Your task to perform on an android device: Search for pizza restaurants on Maps Image 0: 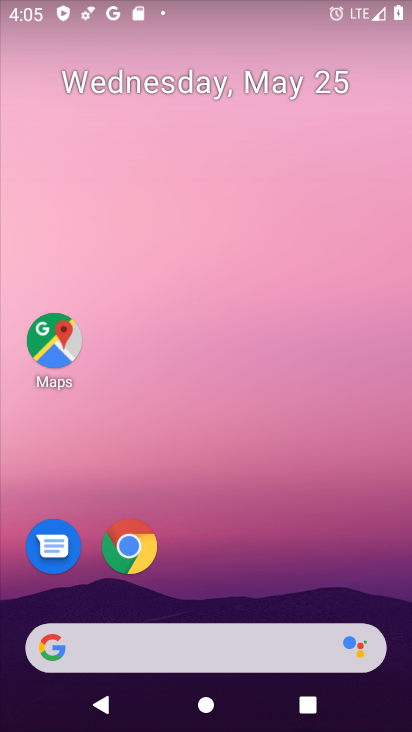
Step 0: click (62, 344)
Your task to perform on an android device: Search for pizza restaurants on Maps Image 1: 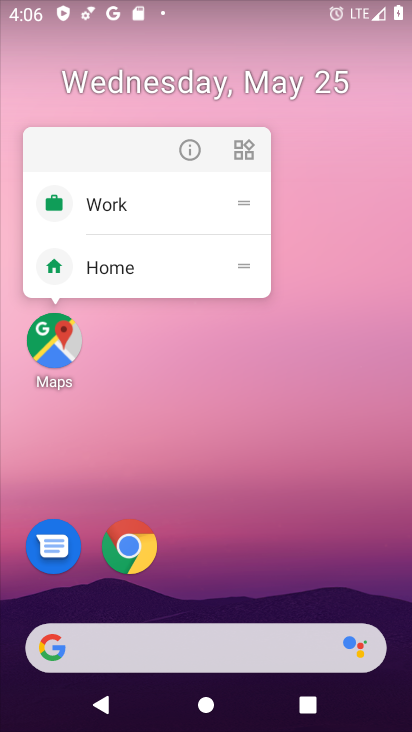
Step 1: click (67, 349)
Your task to perform on an android device: Search for pizza restaurants on Maps Image 2: 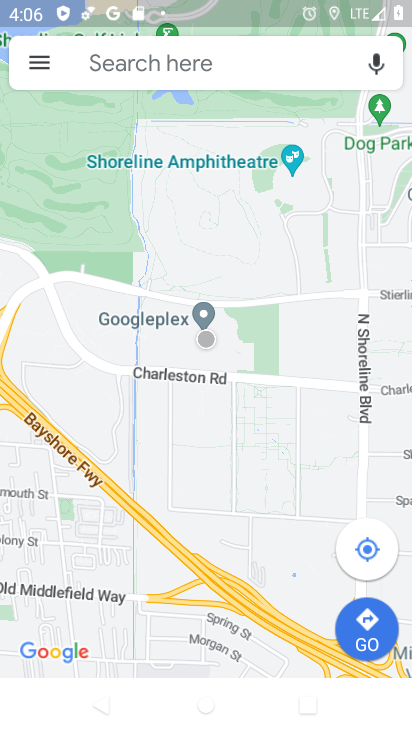
Step 2: click (222, 76)
Your task to perform on an android device: Search for pizza restaurants on Maps Image 3: 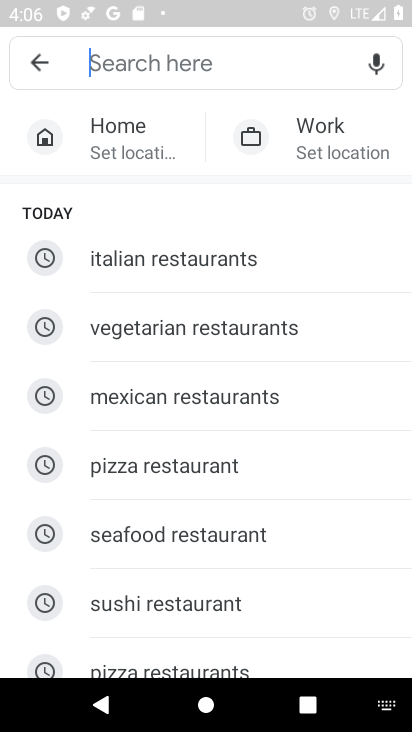
Step 3: type "pizza restaurants"
Your task to perform on an android device: Search for pizza restaurants on Maps Image 4: 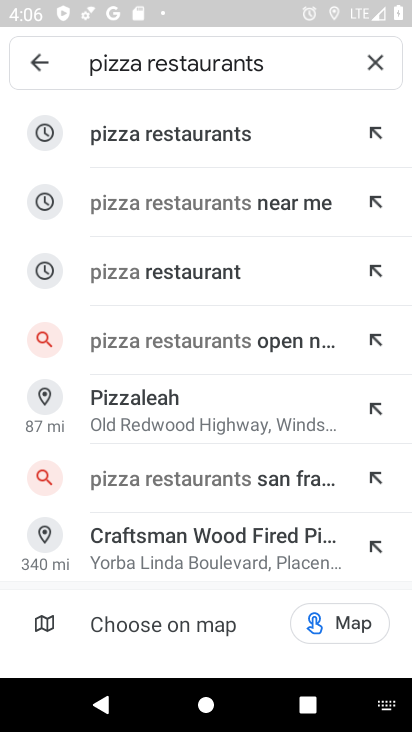
Step 4: click (110, 146)
Your task to perform on an android device: Search for pizza restaurants on Maps Image 5: 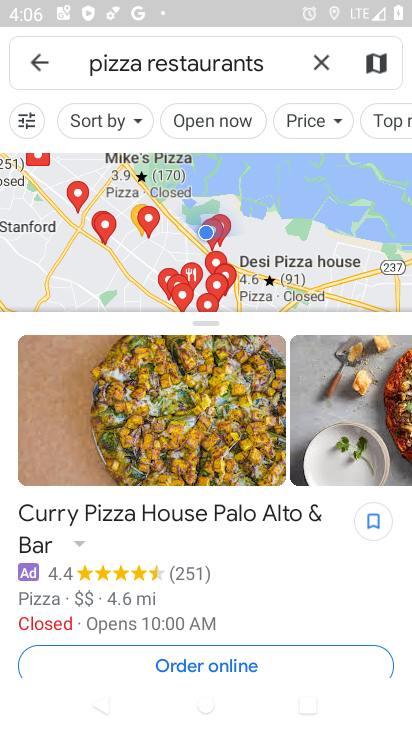
Step 5: task complete